Your task to perform on an android device: find snoozed emails in the gmail app Image 0: 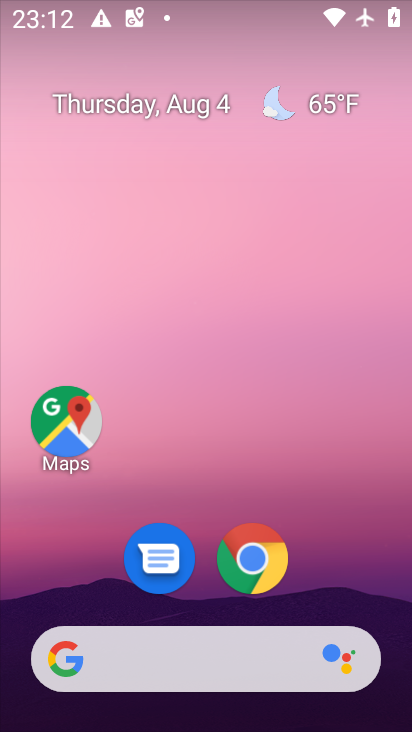
Step 0: drag from (336, 421) to (277, 7)
Your task to perform on an android device: find snoozed emails in the gmail app Image 1: 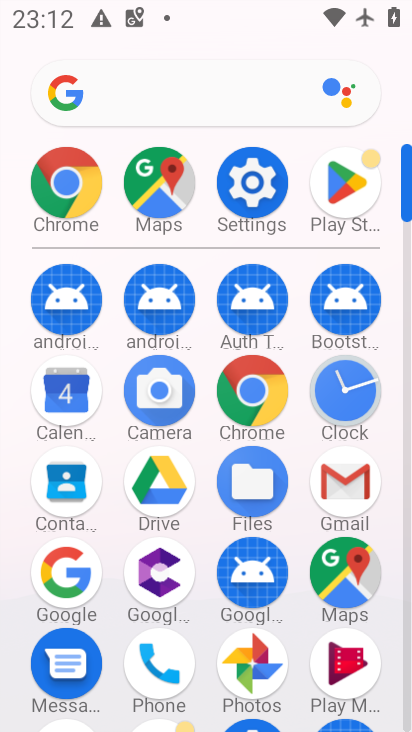
Step 1: click (336, 498)
Your task to perform on an android device: find snoozed emails in the gmail app Image 2: 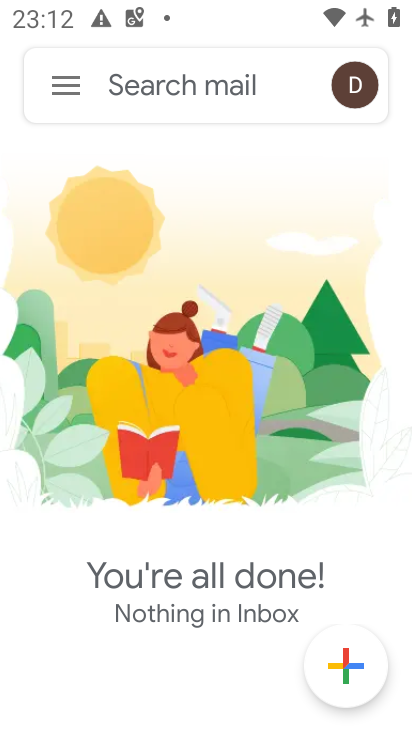
Step 2: click (46, 77)
Your task to perform on an android device: find snoozed emails in the gmail app Image 3: 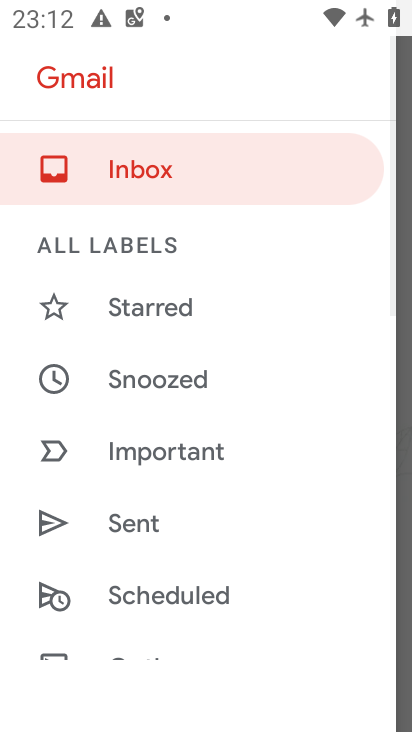
Step 3: drag from (247, 571) to (304, 152)
Your task to perform on an android device: find snoozed emails in the gmail app Image 4: 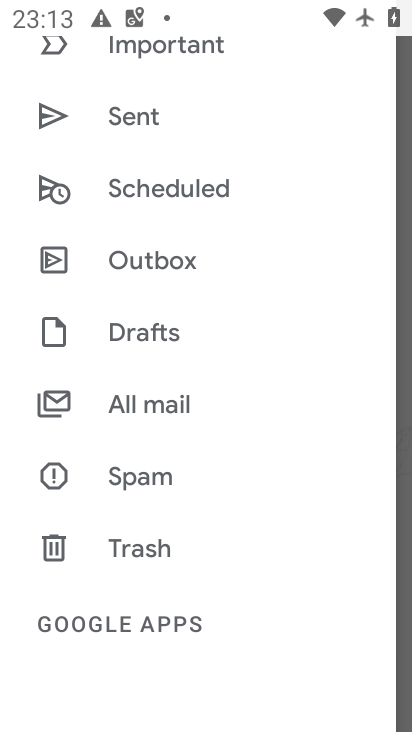
Step 4: drag from (287, 188) to (207, 648)
Your task to perform on an android device: find snoozed emails in the gmail app Image 5: 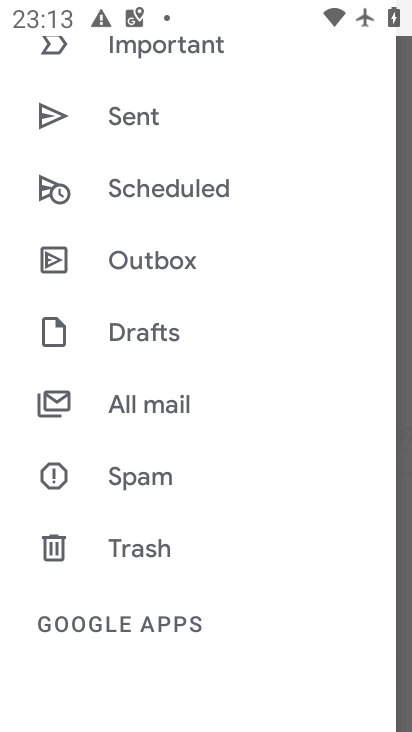
Step 5: drag from (125, 158) to (144, 599)
Your task to perform on an android device: find snoozed emails in the gmail app Image 6: 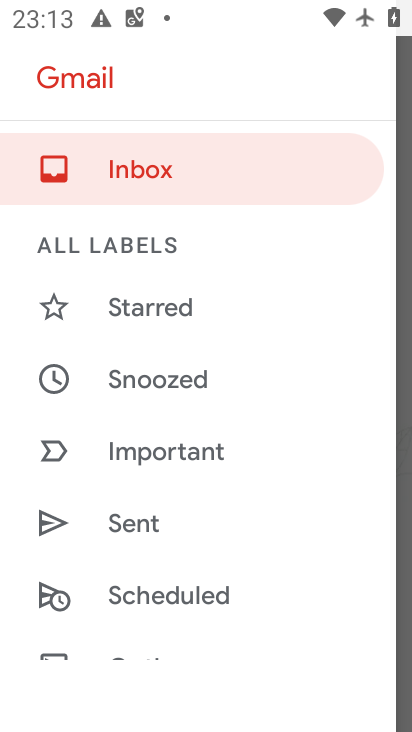
Step 6: click (172, 389)
Your task to perform on an android device: find snoozed emails in the gmail app Image 7: 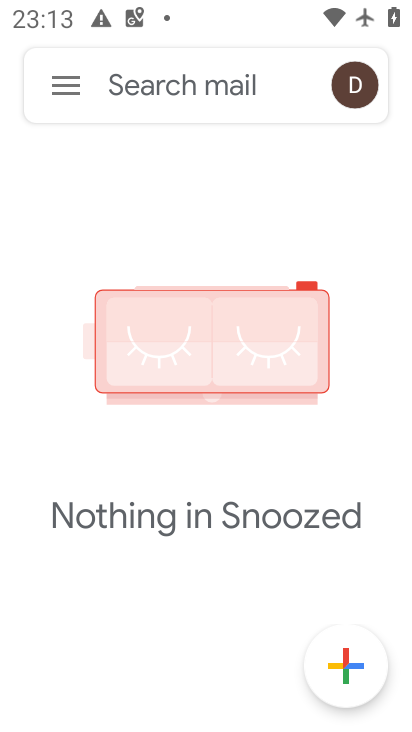
Step 7: task complete